Your task to perform on an android device: turn smart compose on in the gmail app Image 0: 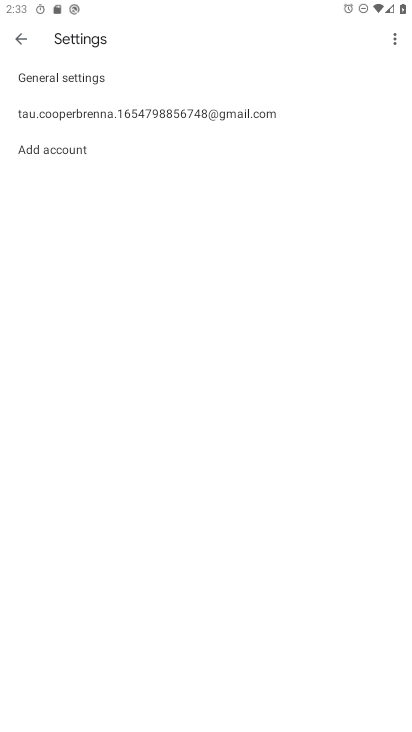
Step 0: drag from (250, 578) to (268, 261)
Your task to perform on an android device: turn smart compose on in the gmail app Image 1: 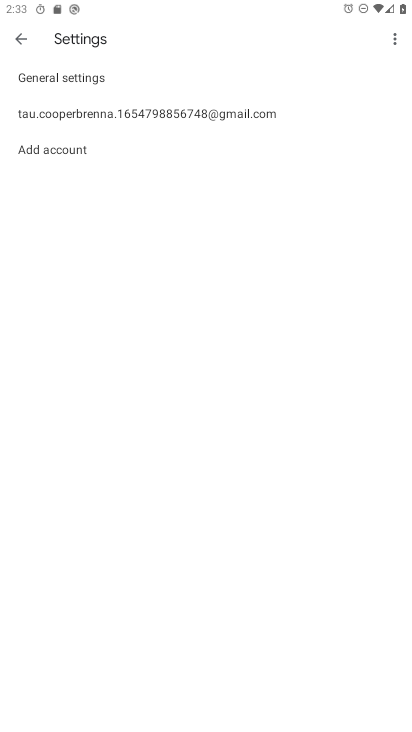
Step 1: press home button
Your task to perform on an android device: turn smart compose on in the gmail app Image 2: 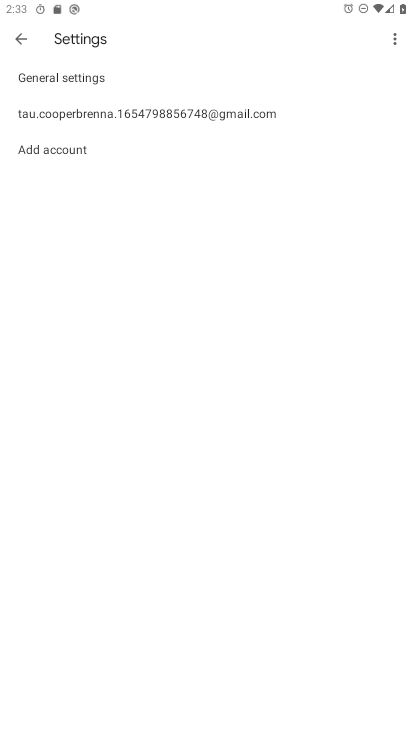
Step 2: drag from (260, 563) to (289, 297)
Your task to perform on an android device: turn smart compose on in the gmail app Image 3: 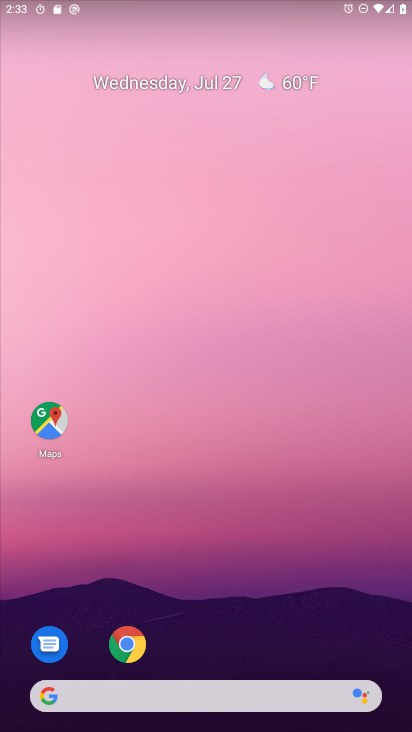
Step 3: drag from (184, 657) to (188, 139)
Your task to perform on an android device: turn smart compose on in the gmail app Image 4: 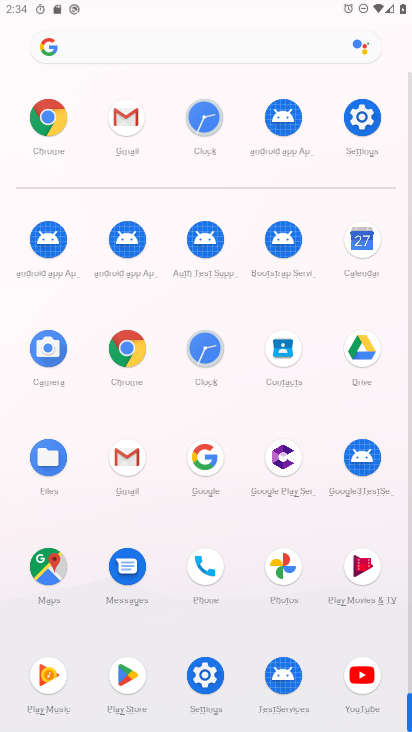
Step 4: click (125, 455)
Your task to perform on an android device: turn smart compose on in the gmail app Image 5: 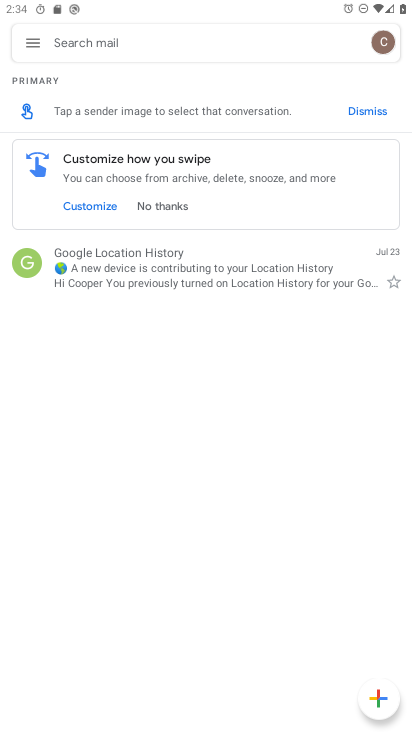
Step 5: click (34, 45)
Your task to perform on an android device: turn smart compose on in the gmail app Image 6: 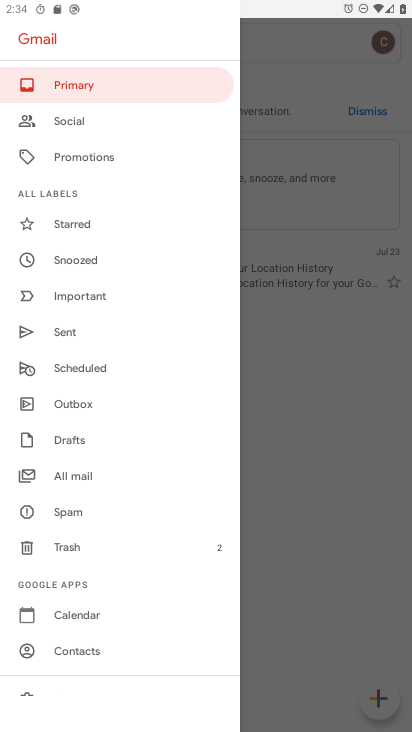
Step 6: drag from (71, 636) to (111, 189)
Your task to perform on an android device: turn smart compose on in the gmail app Image 7: 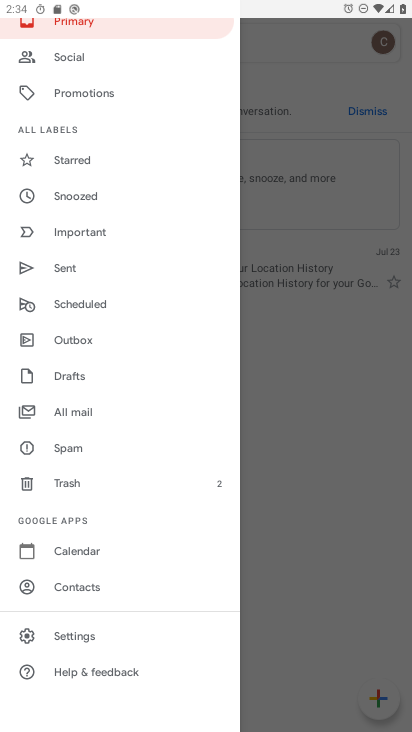
Step 7: click (70, 634)
Your task to perform on an android device: turn smart compose on in the gmail app Image 8: 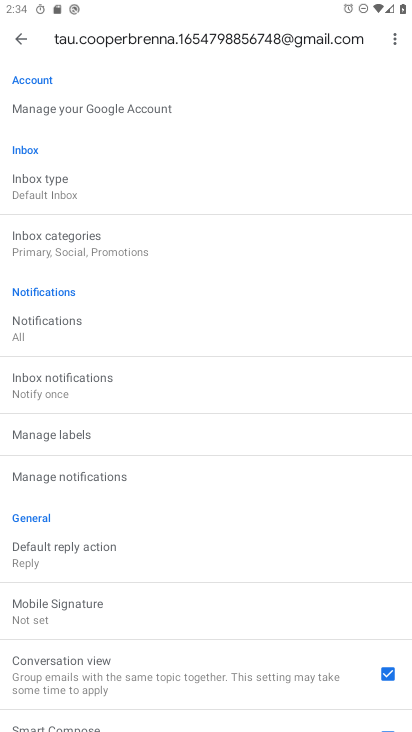
Step 8: task complete